Your task to perform on an android device: change notification settings in the gmail app Image 0: 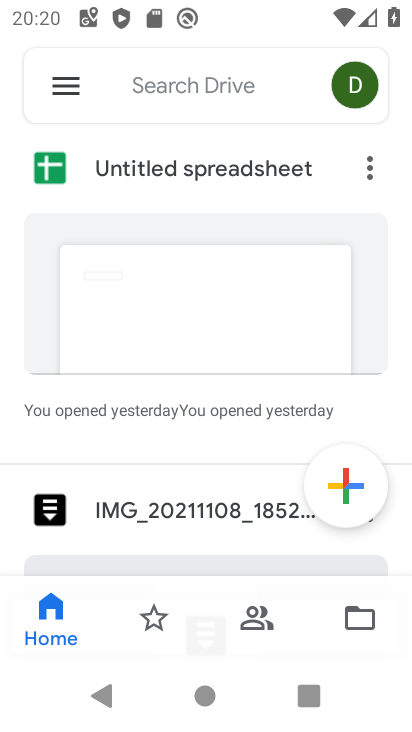
Step 0: press home button
Your task to perform on an android device: change notification settings in the gmail app Image 1: 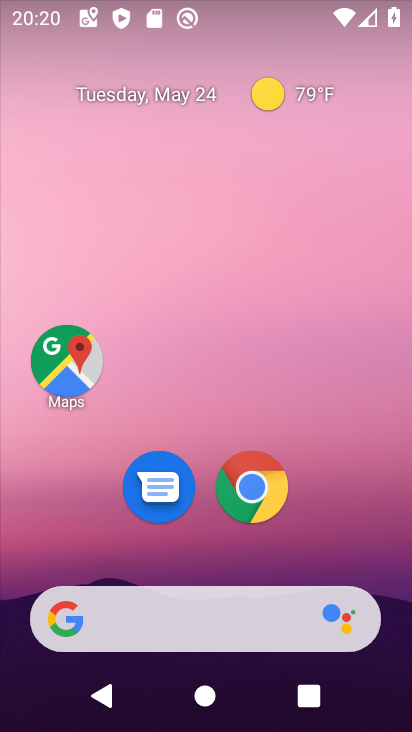
Step 1: drag from (10, 606) to (197, 211)
Your task to perform on an android device: change notification settings in the gmail app Image 2: 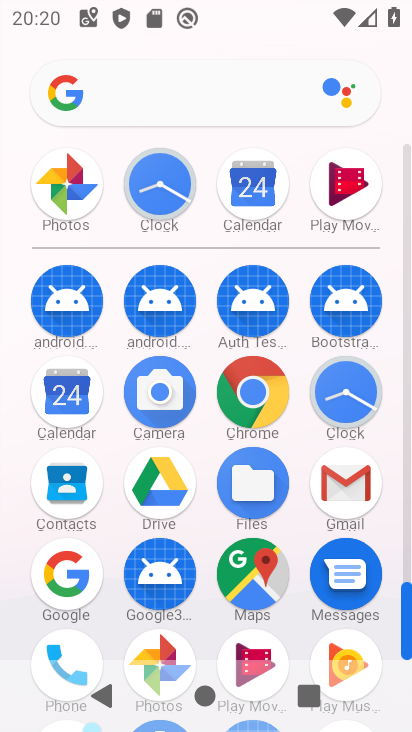
Step 2: drag from (71, 478) to (254, 198)
Your task to perform on an android device: change notification settings in the gmail app Image 3: 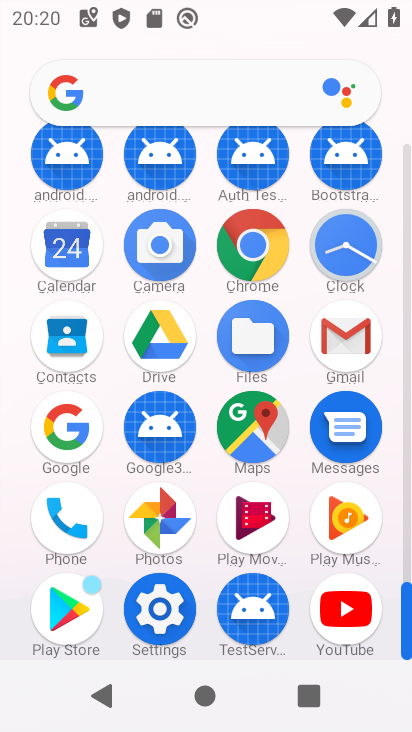
Step 3: click (145, 614)
Your task to perform on an android device: change notification settings in the gmail app Image 4: 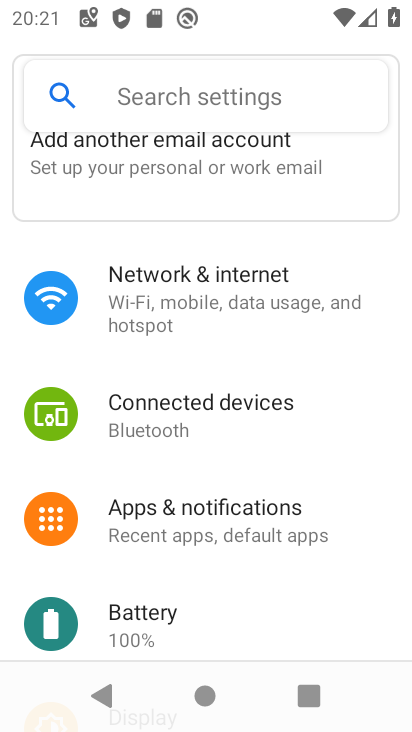
Step 4: click (180, 491)
Your task to perform on an android device: change notification settings in the gmail app Image 5: 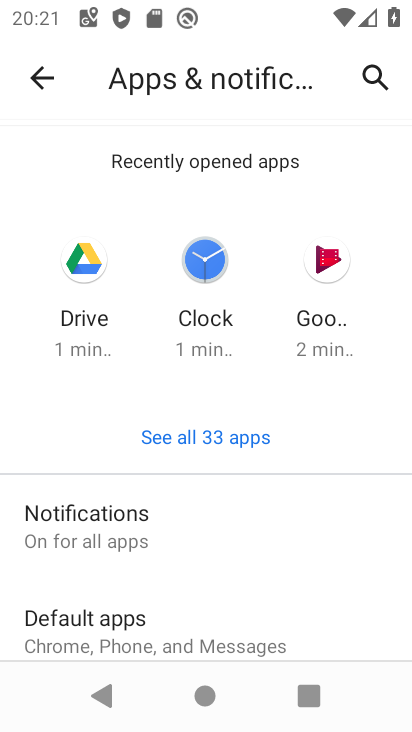
Step 5: click (207, 438)
Your task to perform on an android device: change notification settings in the gmail app Image 6: 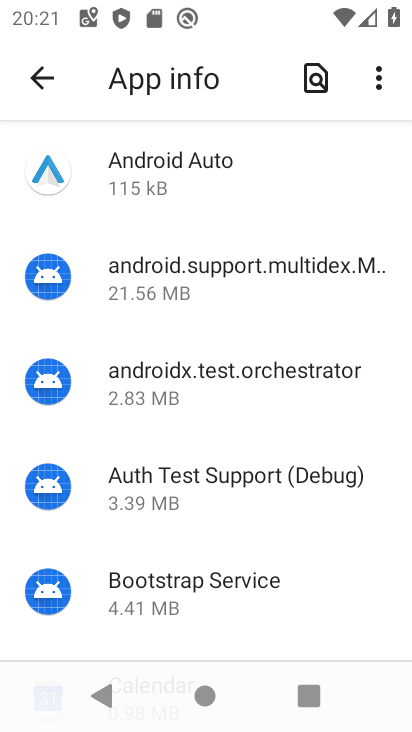
Step 6: drag from (4, 474) to (230, 95)
Your task to perform on an android device: change notification settings in the gmail app Image 7: 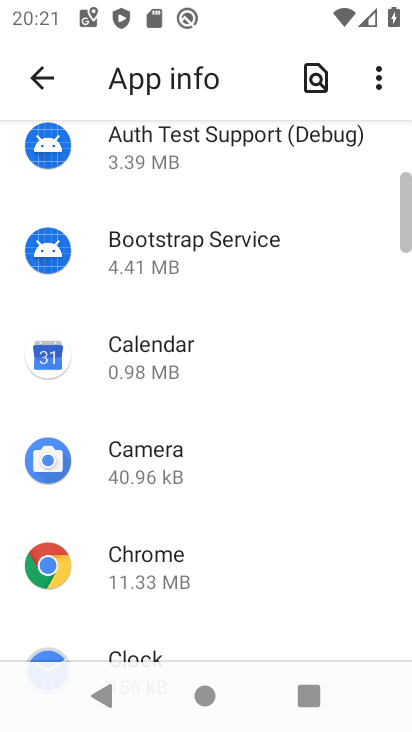
Step 7: drag from (29, 597) to (240, 100)
Your task to perform on an android device: change notification settings in the gmail app Image 8: 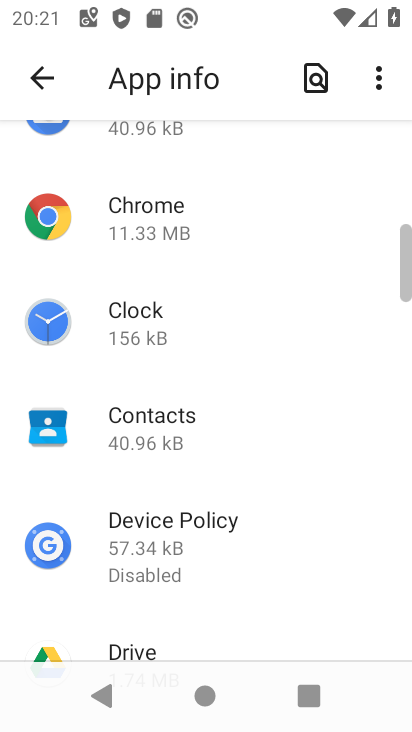
Step 8: drag from (10, 550) to (266, 105)
Your task to perform on an android device: change notification settings in the gmail app Image 9: 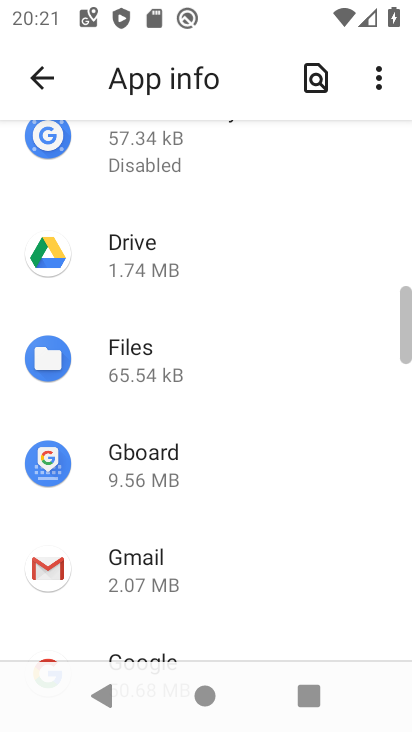
Step 9: click (42, 567)
Your task to perform on an android device: change notification settings in the gmail app Image 10: 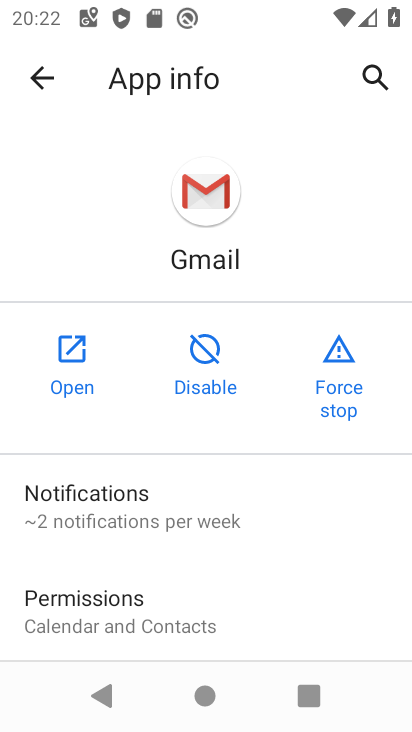
Step 10: click (145, 497)
Your task to perform on an android device: change notification settings in the gmail app Image 11: 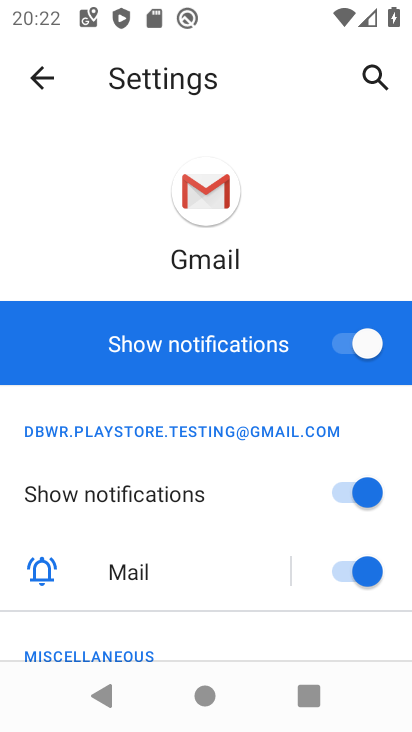
Step 11: click (374, 331)
Your task to perform on an android device: change notification settings in the gmail app Image 12: 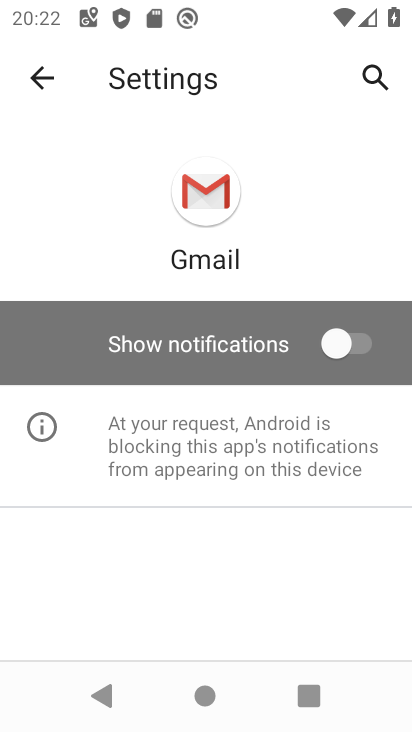
Step 12: task complete